Your task to perform on an android device: See recent photos Image 0: 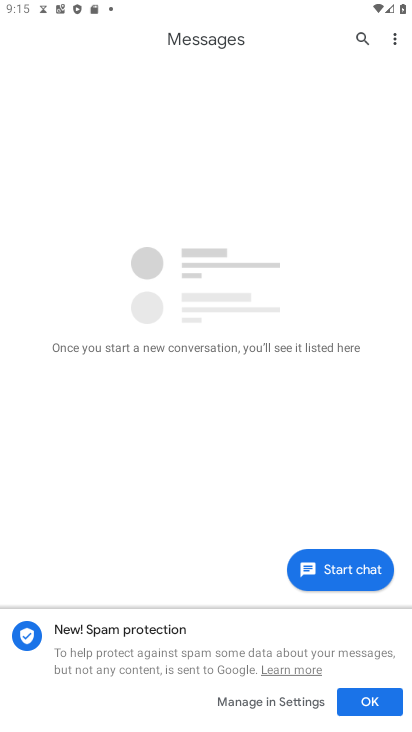
Step 0: press home button
Your task to perform on an android device: See recent photos Image 1: 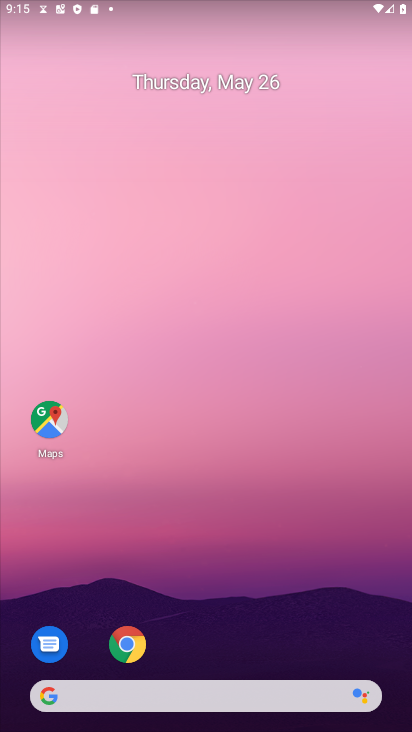
Step 1: drag from (204, 589) to (216, 56)
Your task to perform on an android device: See recent photos Image 2: 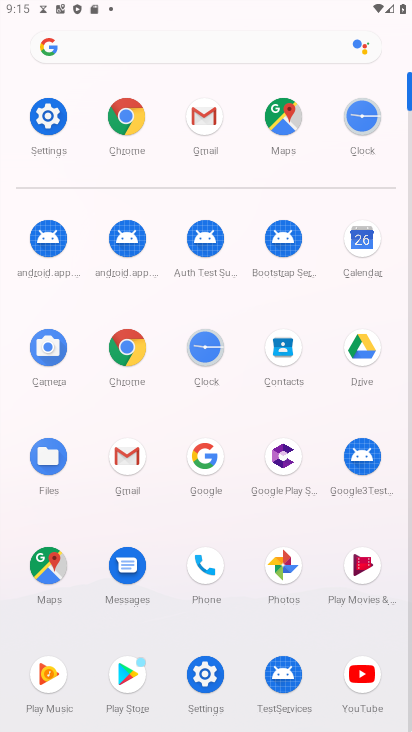
Step 2: click (278, 576)
Your task to perform on an android device: See recent photos Image 3: 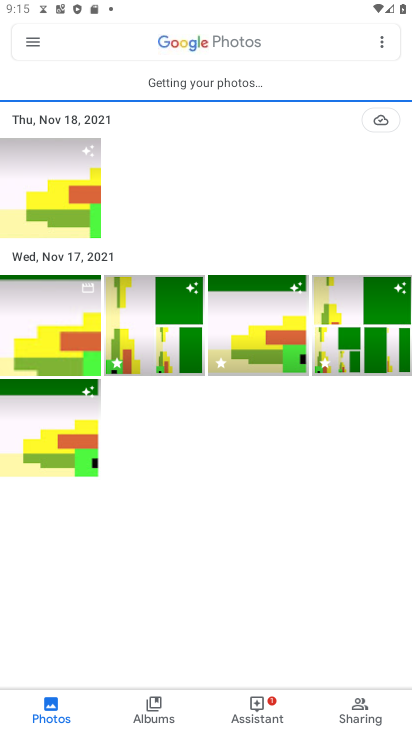
Step 3: task complete